Your task to perform on an android device: turn vacation reply on in the gmail app Image 0: 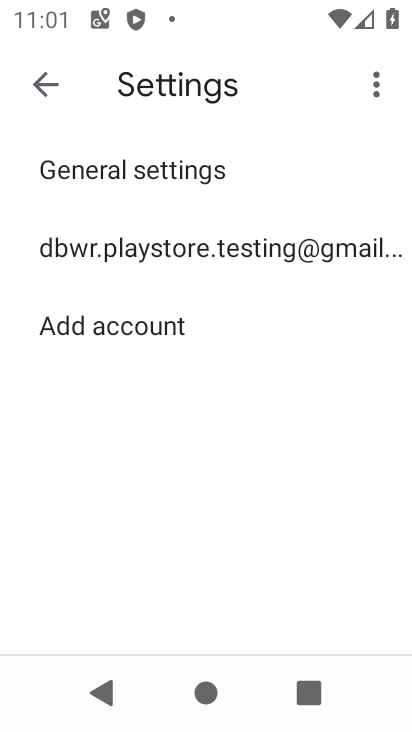
Step 0: press home button
Your task to perform on an android device: turn vacation reply on in the gmail app Image 1: 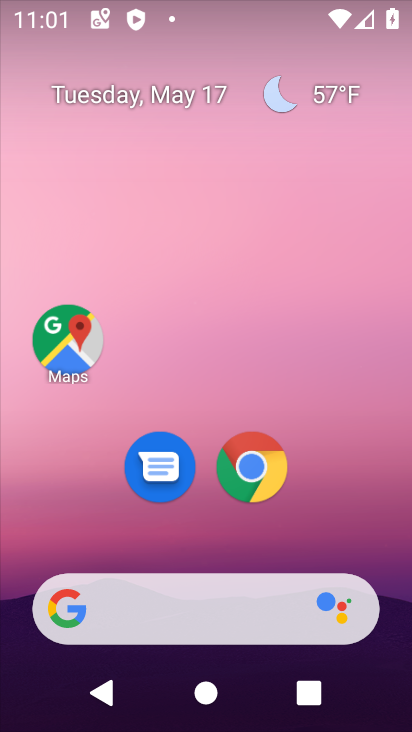
Step 1: drag from (232, 545) to (239, 74)
Your task to perform on an android device: turn vacation reply on in the gmail app Image 2: 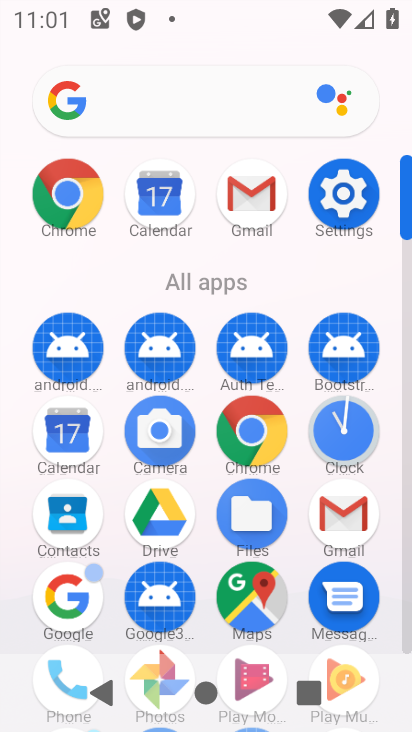
Step 2: click (261, 180)
Your task to perform on an android device: turn vacation reply on in the gmail app Image 3: 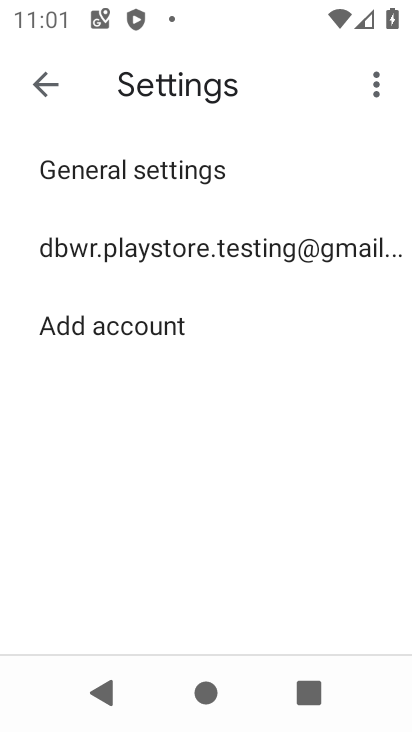
Step 3: click (118, 247)
Your task to perform on an android device: turn vacation reply on in the gmail app Image 4: 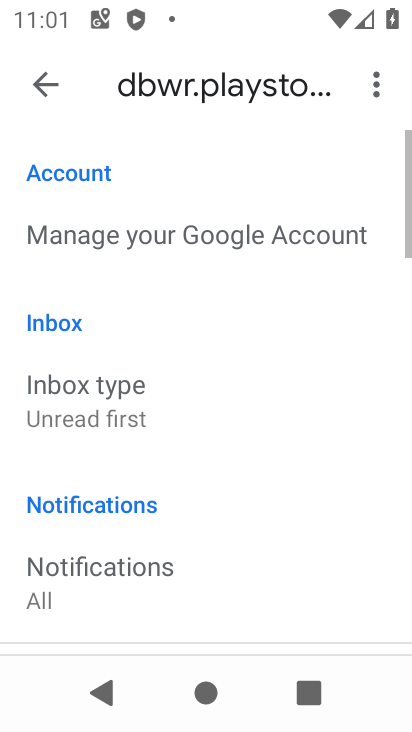
Step 4: drag from (142, 630) to (170, 183)
Your task to perform on an android device: turn vacation reply on in the gmail app Image 5: 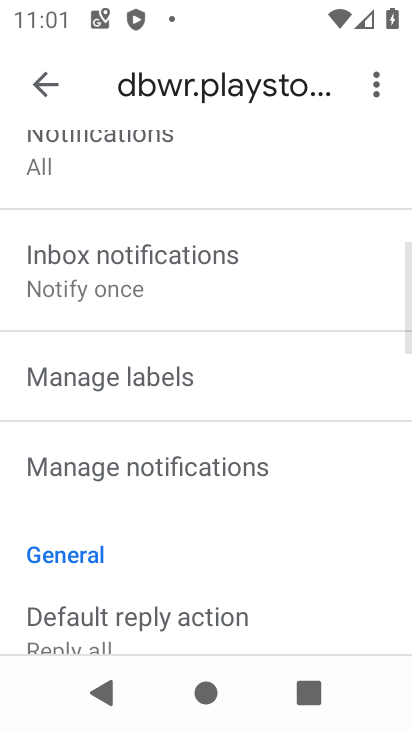
Step 5: drag from (147, 648) to (189, 196)
Your task to perform on an android device: turn vacation reply on in the gmail app Image 6: 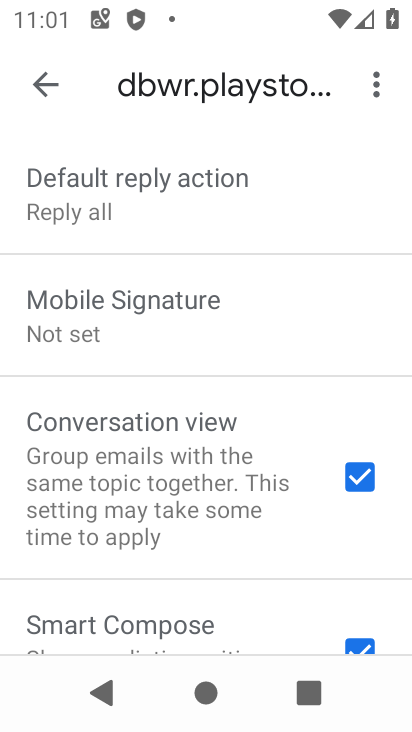
Step 6: drag from (159, 633) to (202, 273)
Your task to perform on an android device: turn vacation reply on in the gmail app Image 7: 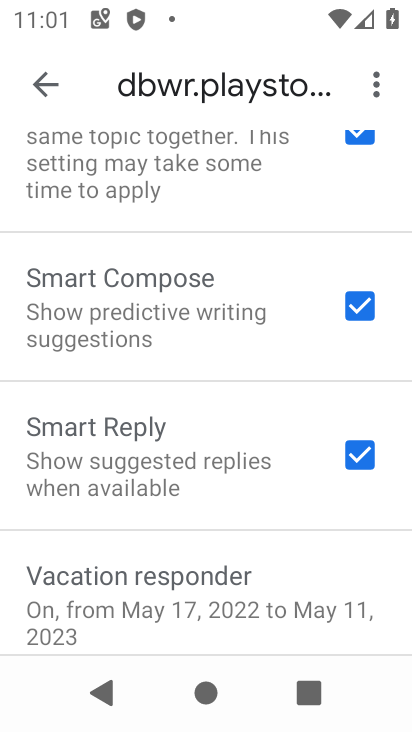
Step 7: click (177, 587)
Your task to perform on an android device: turn vacation reply on in the gmail app Image 8: 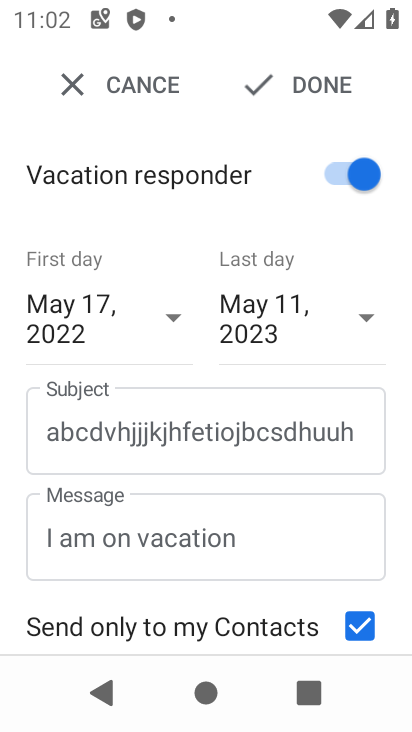
Step 8: task complete